Your task to perform on an android device: Go to ESPN.com Image 0: 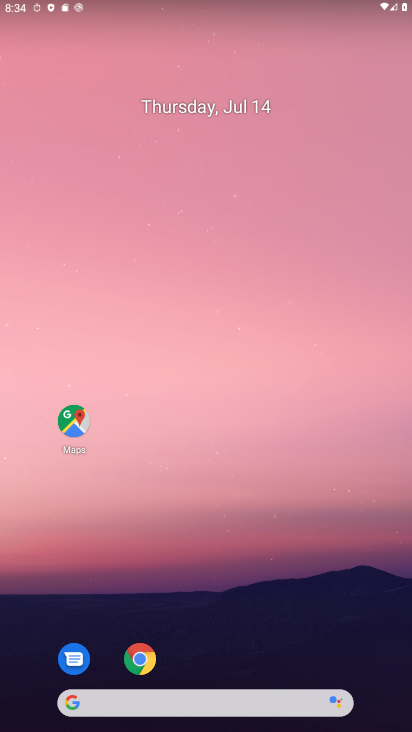
Step 0: click (145, 657)
Your task to perform on an android device: Go to ESPN.com Image 1: 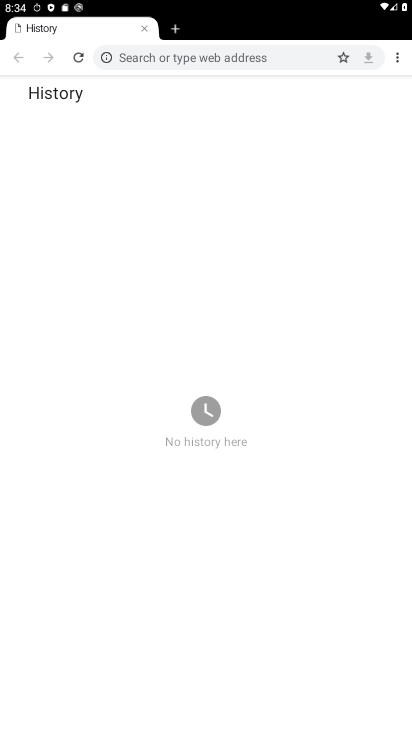
Step 1: click (190, 26)
Your task to perform on an android device: Go to ESPN.com Image 2: 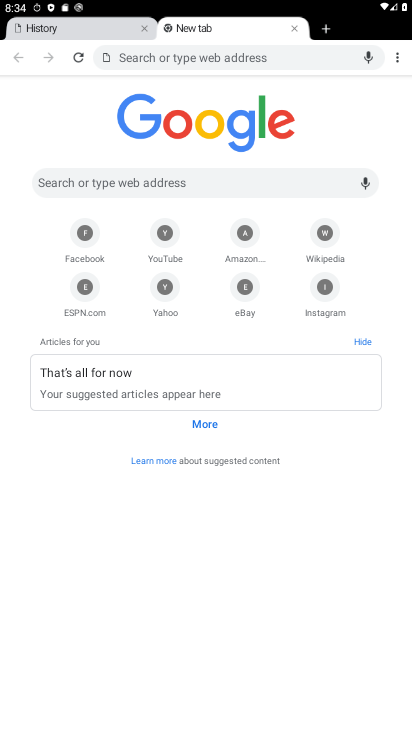
Step 2: click (175, 27)
Your task to perform on an android device: Go to ESPN.com Image 3: 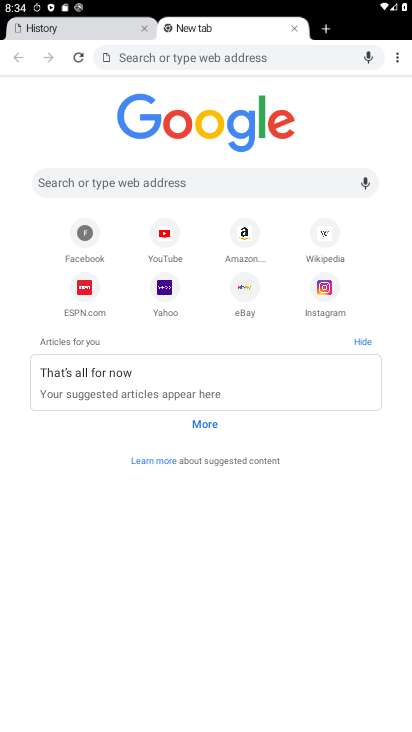
Step 3: click (82, 283)
Your task to perform on an android device: Go to ESPN.com Image 4: 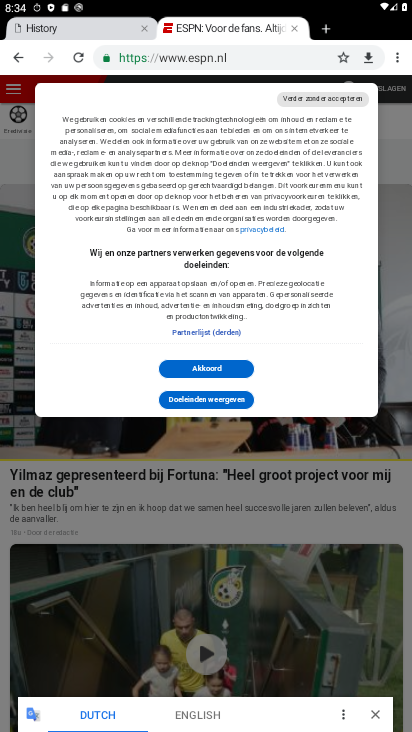
Step 4: click (232, 374)
Your task to perform on an android device: Go to ESPN.com Image 5: 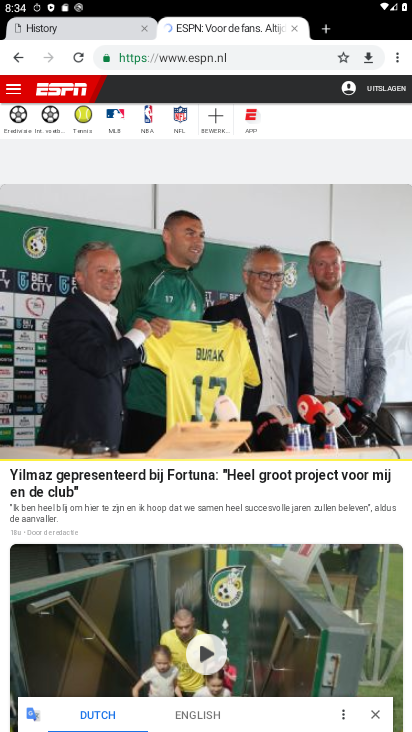
Step 5: task complete